Your task to perform on an android device: Open my contact list Image 0: 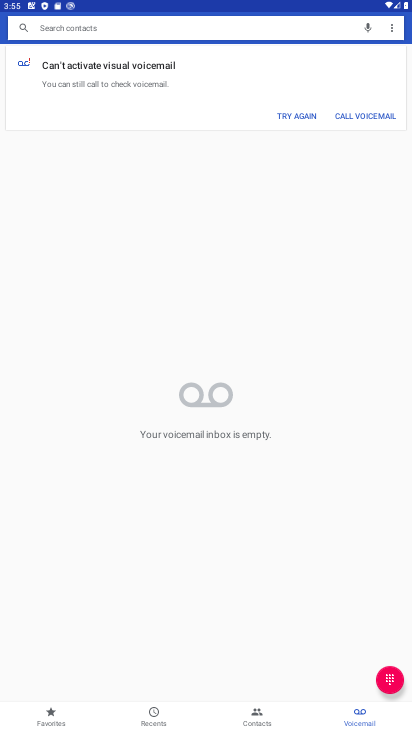
Step 0: press home button
Your task to perform on an android device: Open my contact list Image 1: 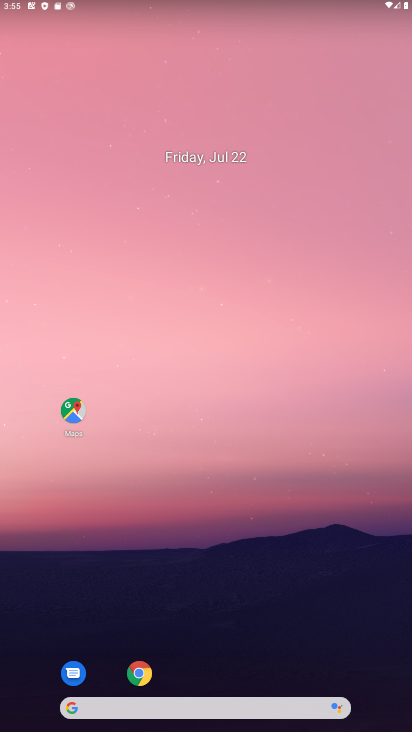
Step 1: drag from (239, 679) to (214, 18)
Your task to perform on an android device: Open my contact list Image 2: 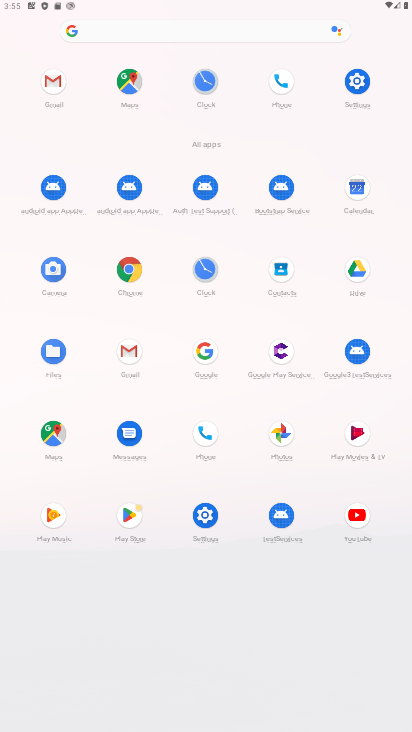
Step 2: click (277, 263)
Your task to perform on an android device: Open my contact list Image 3: 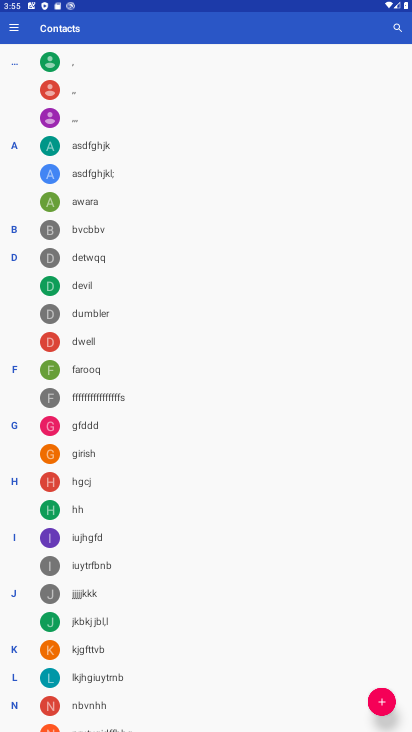
Step 3: task complete